Your task to perform on an android device: Set the phone to "Do not disturb". Image 0: 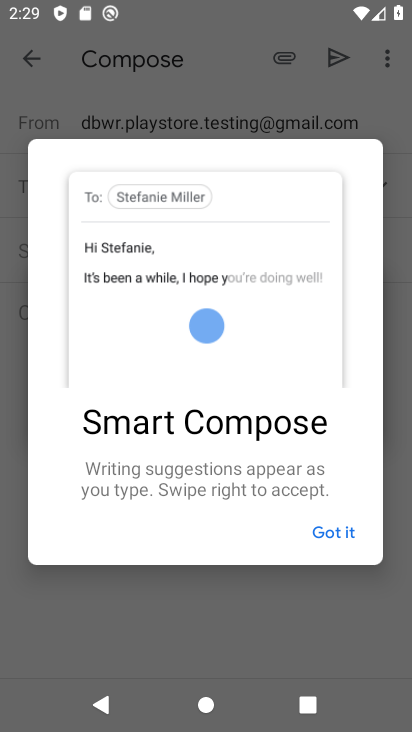
Step 0: press home button
Your task to perform on an android device: Set the phone to "Do not disturb". Image 1: 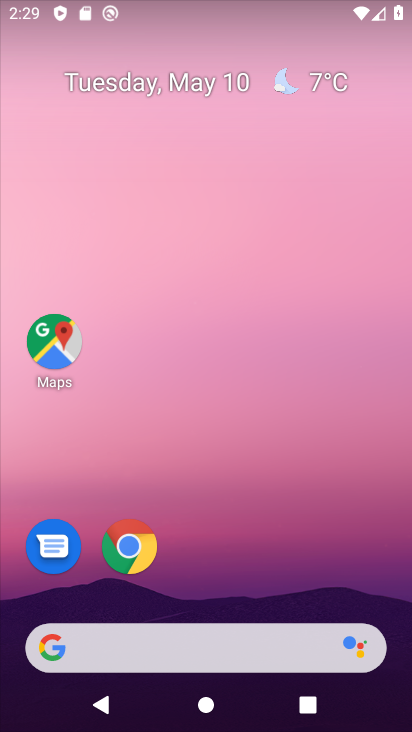
Step 1: drag from (226, 596) to (285, 140)
Your task to perform on an android device: Set the phone to "Do not disturb". Image 2: 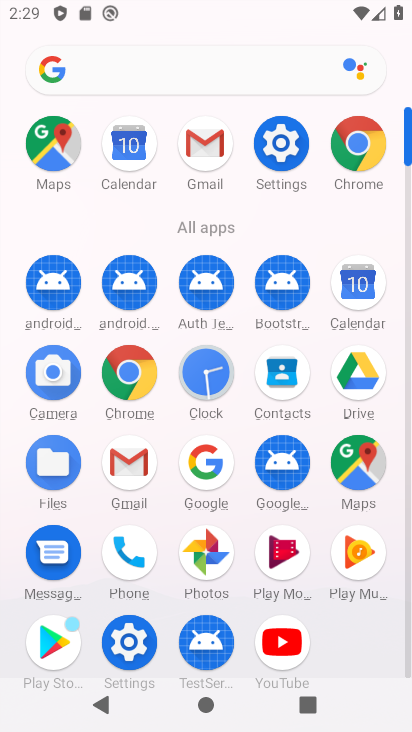
Step 2: click (287, 147)
Your task to perform on an android device: Set the phone to "Do not disturb". Image 3: 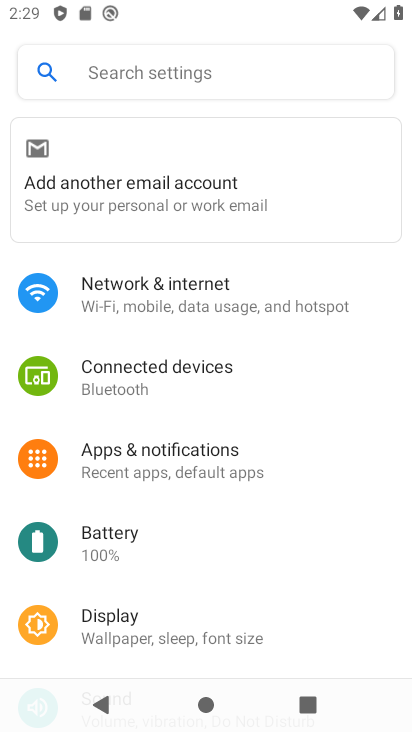
Step 3: drag from (197, 592) to (246, 326)
Your task to perform on an android device: Set the phone to "Do not disturb". Image 4: 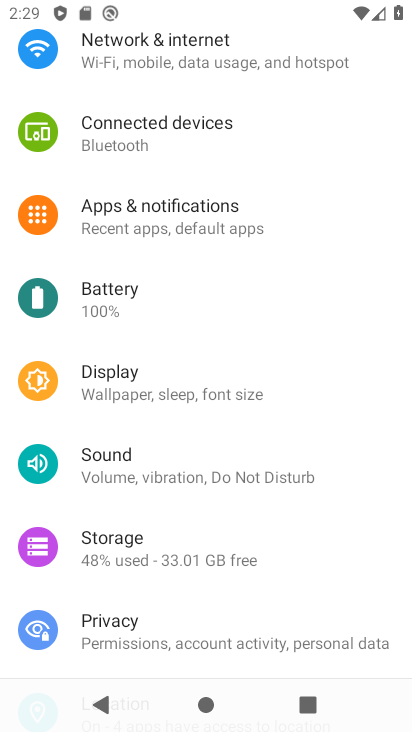
Step 4: click (205, 479)
Your task to perform on an android device: Set the phone to "Do not disturb". Image 5: 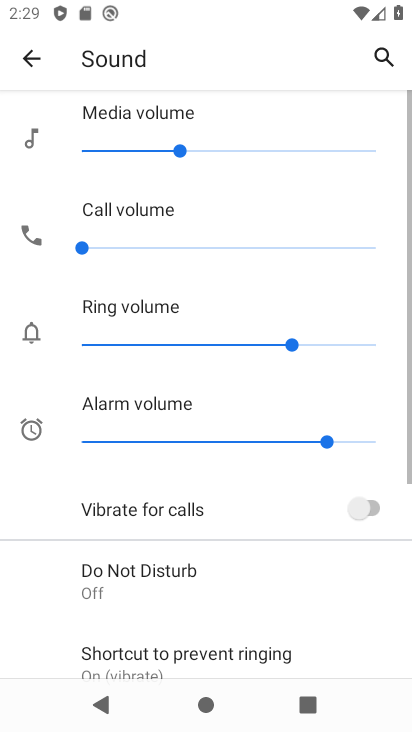
Step 5: click (200, 582)
Your task to perform on an android device: Set the phone to "Do not disturb". Image 6: 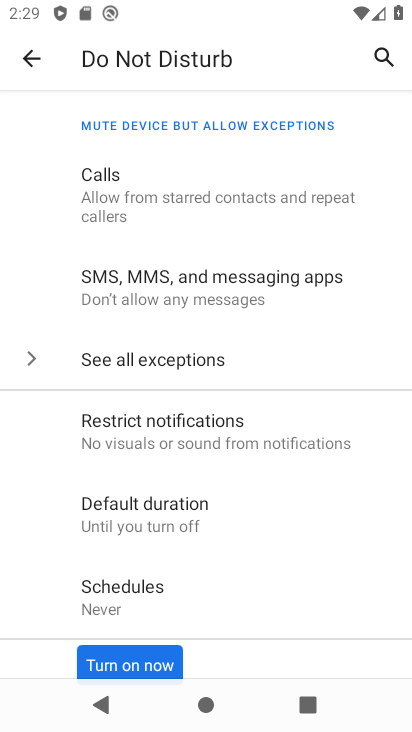
Step 6: drag from (264, 357) to (291, 385)
Your task to perform on an android device: Set the phone to "Do not disturb". Image 7: 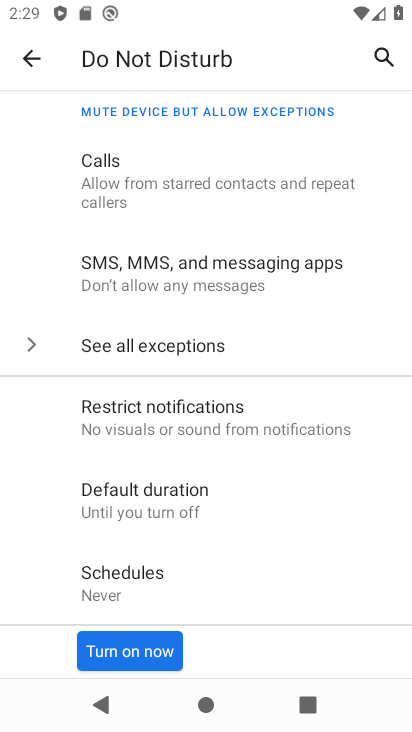
Step 7: click (165, 634)
Your task to perform on an android device: Set the phone to "Do not disturb". Image 8: 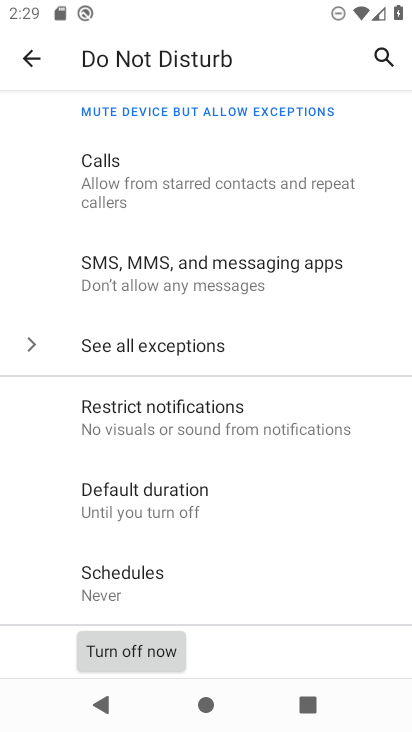
Step 8: task complete